Your task to perform on an android device: Go to Wikipedia Image 0: 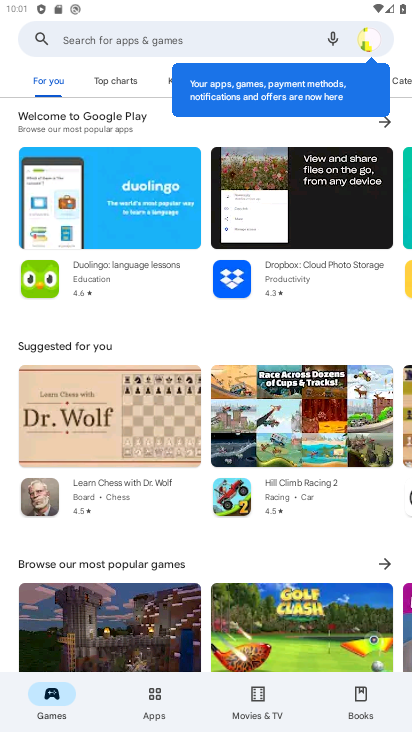
Step 0: press home button
Your task to perform on an android device: Go to Wikipedia Image 1: 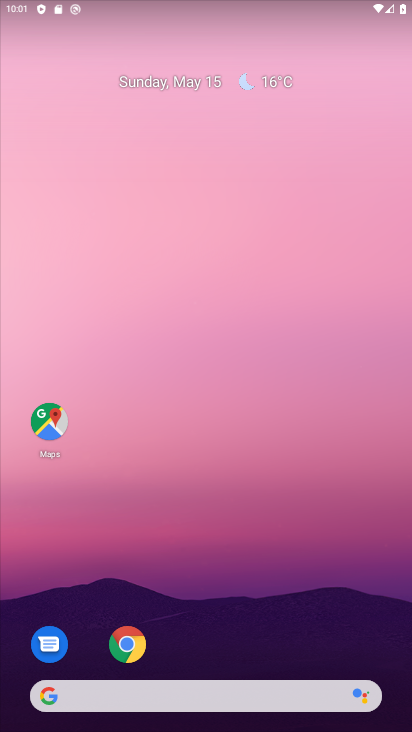
Step 1: click (123, 652)
Your task to perform on an android device: Go to Wikipedia Image 2: 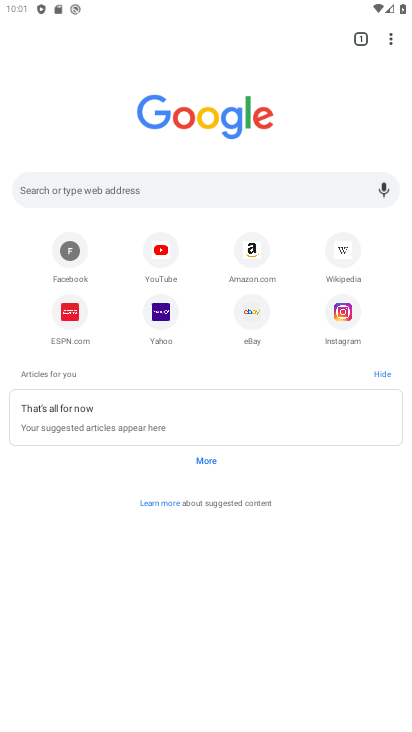
Step 2: click (351, 237)
Your task to perform on an android device: Go to Wikipedia Image 3: 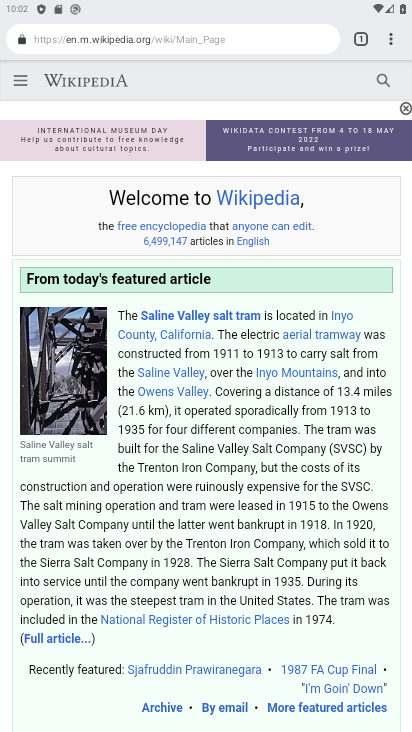
Step 3: task complete